Your task to perform on an android device: Show me the alarms in the clock app Image 0: 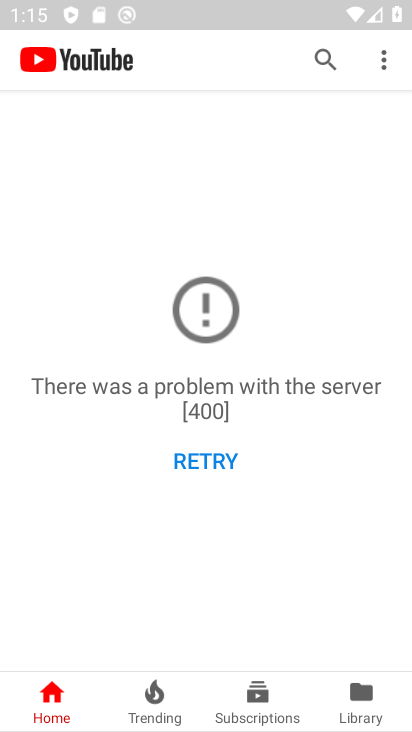
Step 0: press home button
Your task to perform on an android device: Show me the alarms in the clock app Image 1: 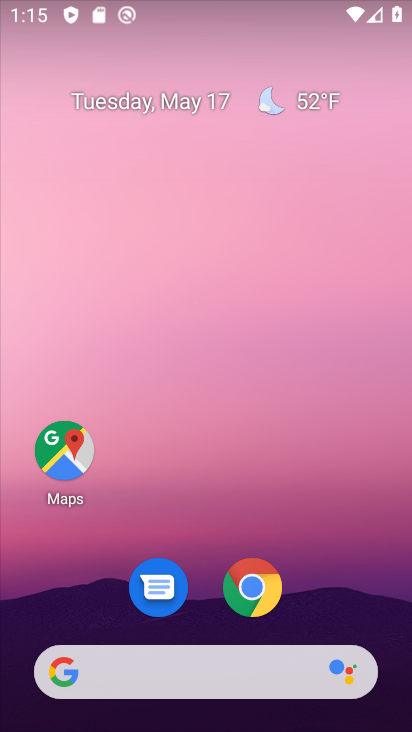
Step 1: drag from (359, 559) to (397, 30)
Your task to perform on an android device: Show me the alarms in the clock app Image 2: 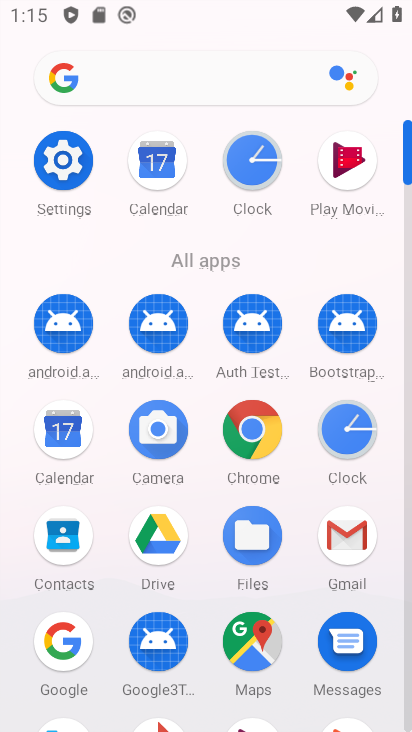
Step 2: click (254, 167)
Your task to perform on an android device: Show me the alarms in the clock app Image 3: 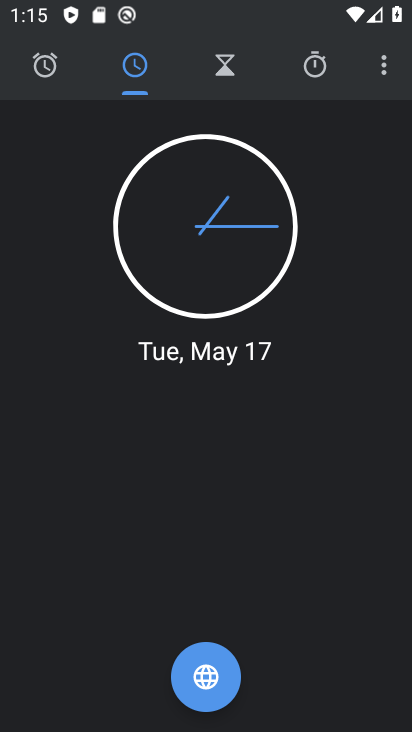
Step 3: click (58, 84)
Your task to perform on an android device: Show me the alarms in the clock app Image 4: 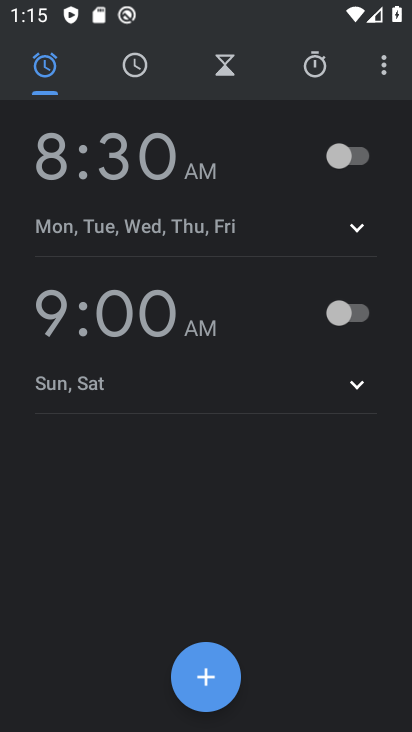
Step 4: task complete